Your task to perform on an android device: Open display settings Image 0: 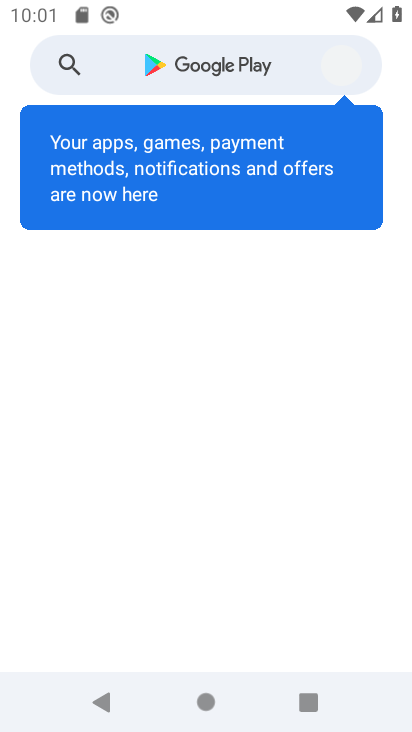
Step 0: press home button
Your task to perform on an android device: Open display settings Image 1: 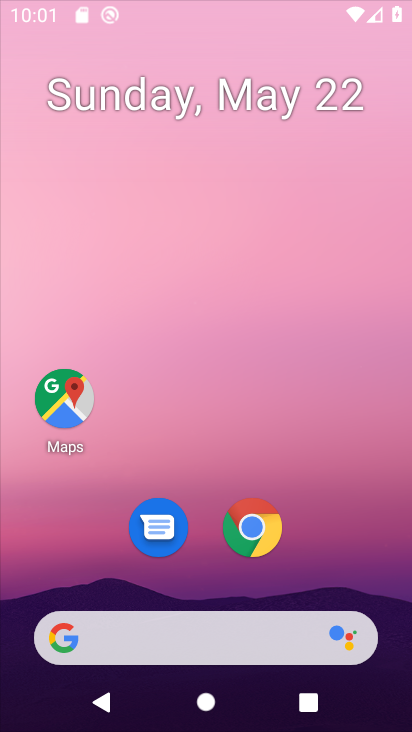
Step 1: drag from (181, 702) to (318, 96)
Your task to perform on an android device: Open display settings Image 2: 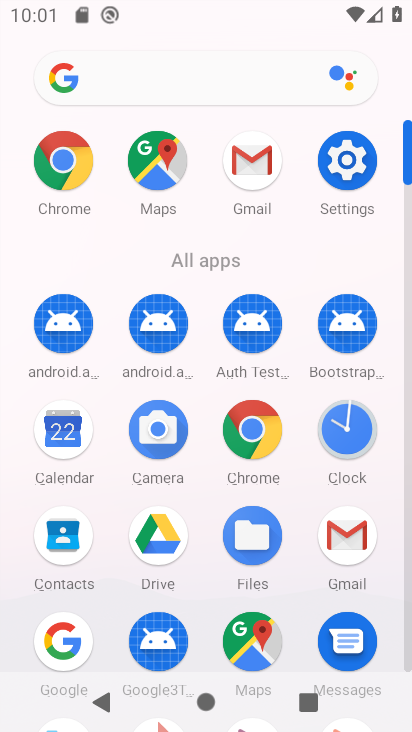
Step 2: click (347, 187)
Your task to perform on an android device: Open display settings Image 3: 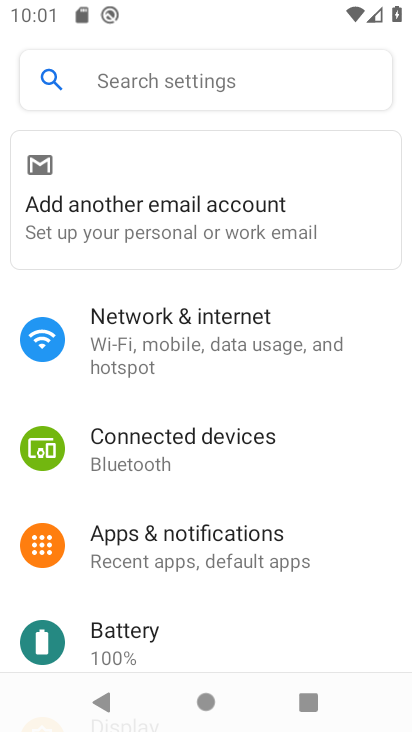
Step 3: drag from (171, 574) to (250, 142)
Your task to perform on an android device: Open display settings Image 4: 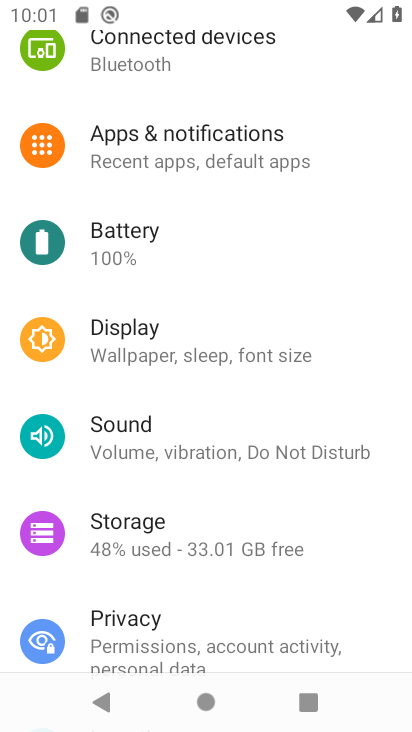
Step 4: click (226, 369)
Your task to perform on an android device: Open display settings Image 5: 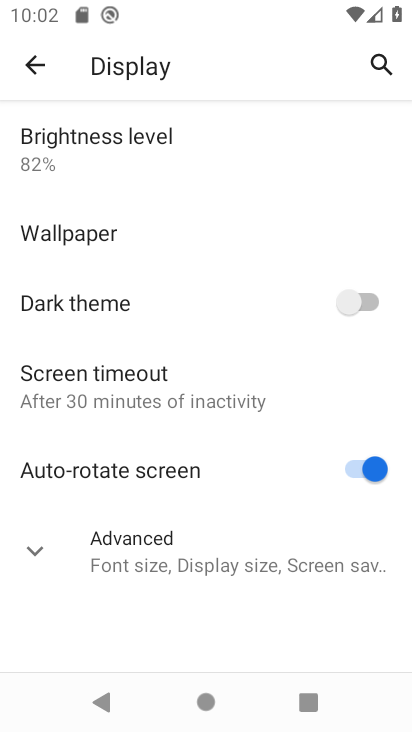
Step 5: task complete